Your task to perform on an android device: Go to wifi settings Image 0: 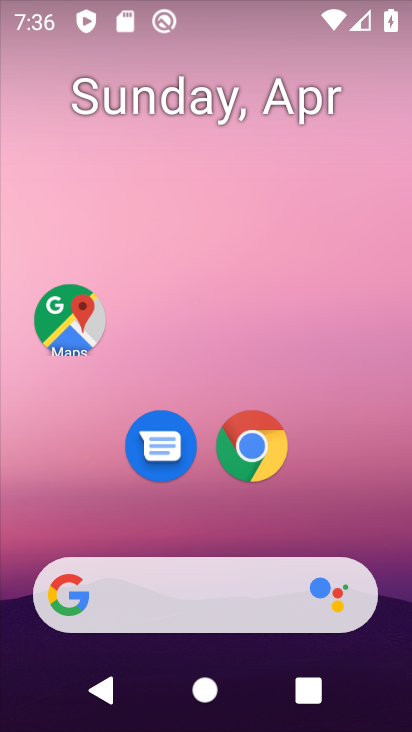
Step 0: drag from (137, 32) to (352, 5)
Your task to perform on an android device: Go to wifi settings Image 1: 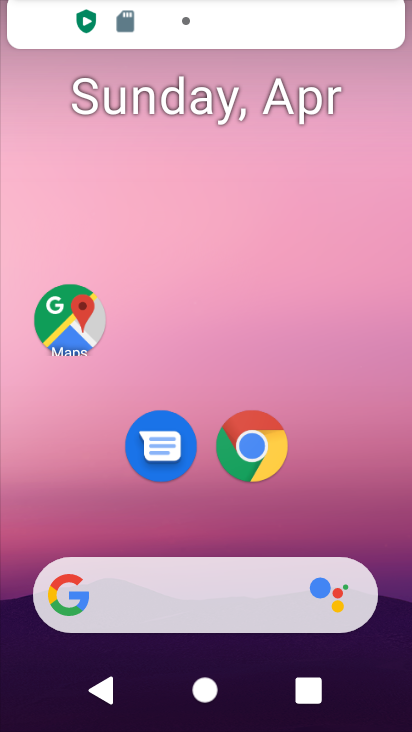
Step 1: drag from (188, 362) to (329, 95)
Your task to perform on an android device: Go to wifi settings Image 2: 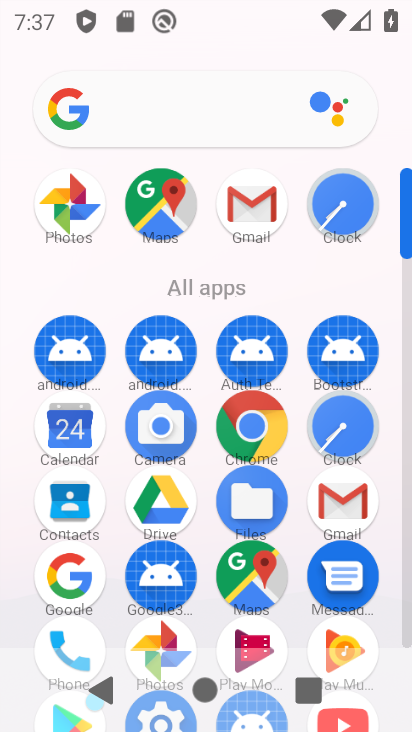
Step 2: drag from (212, 613) to (193, 185)
Your task to perform on an android device: Go to wifi settings Image 3: 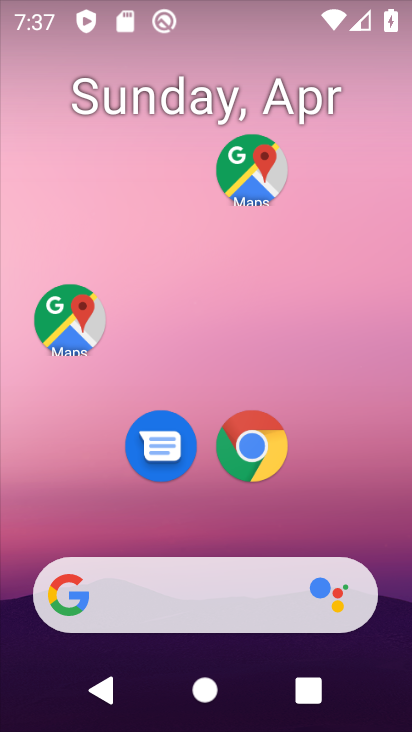
Step 3: drag from (237, 547) to (331, 3)
Your task to perform on an android device: Go to wifi settings Image 4: 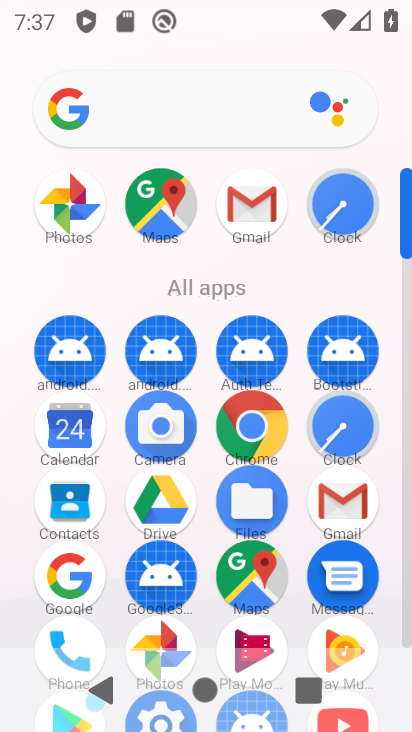
Step 4: drag from (113, 599) to (115, 211)
Your task to perform on an android device: Go to wifi settings Image 5: 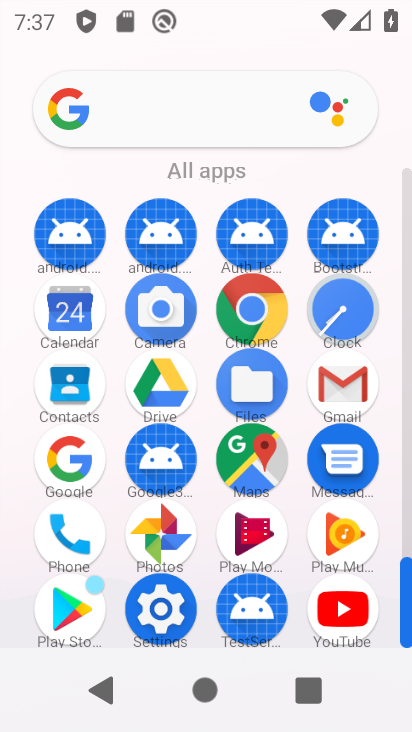
Step 5: click (165, 607)
Your task to perform on an android device: Go to wifi settings Image 6: 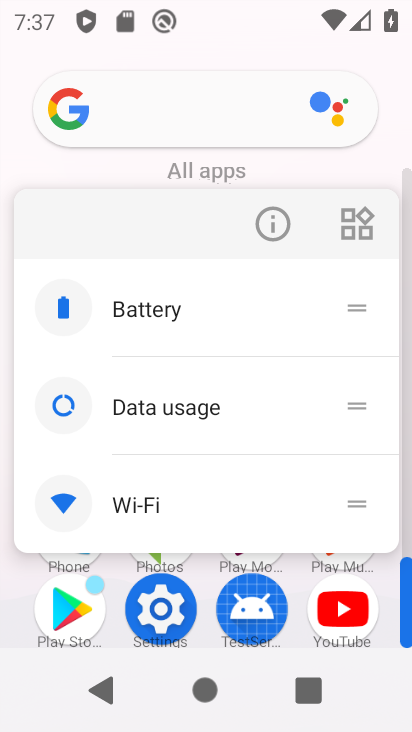
Step 6: click (164, 608)
Your task to perform on an android device: Go to wifi settings Image 7: 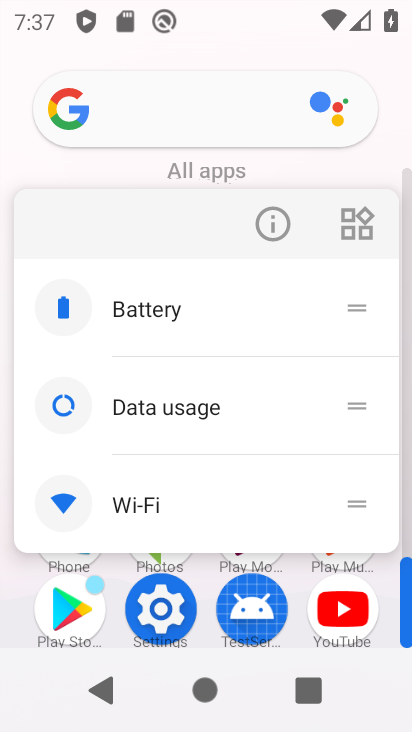
Step 7: click (158, 623)
Your task to perform on an android device: Go to wifi settings Image 8: 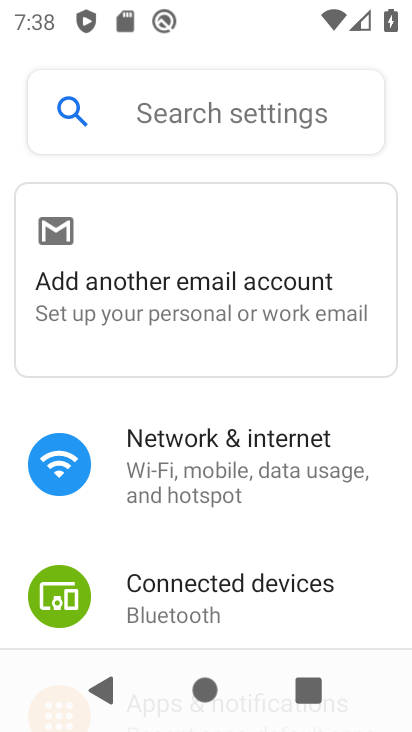
Step 8: click (241, 476)
Your task to perform on an android device: Go to wifi settings Image 9: 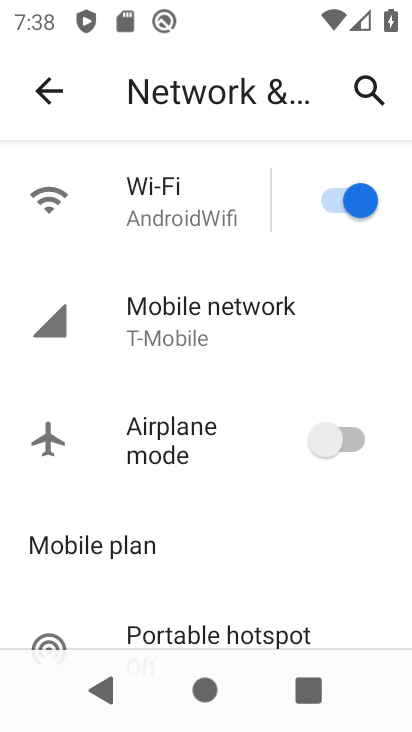
Step 9: click (166, 199)
Your task to perform on an android device: Go to wifi settings Image 10: 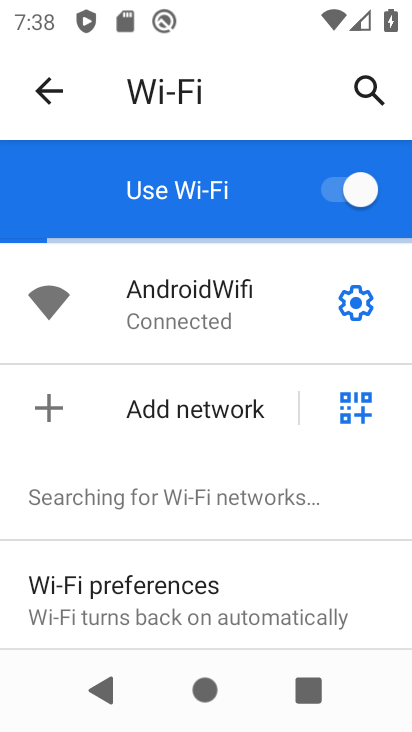
Step 10: task complete